Your task to perform on an android device: open a new tab in the chrome app Image 0: 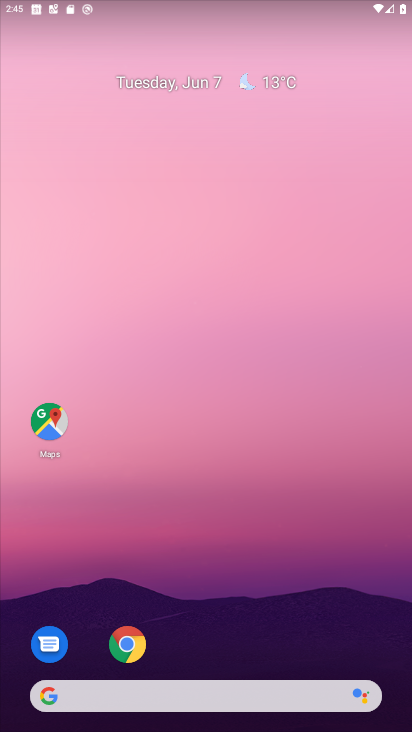
Step 0: press home button
Your task to perform on an android device: open a new tab in the chrome app Image 1: 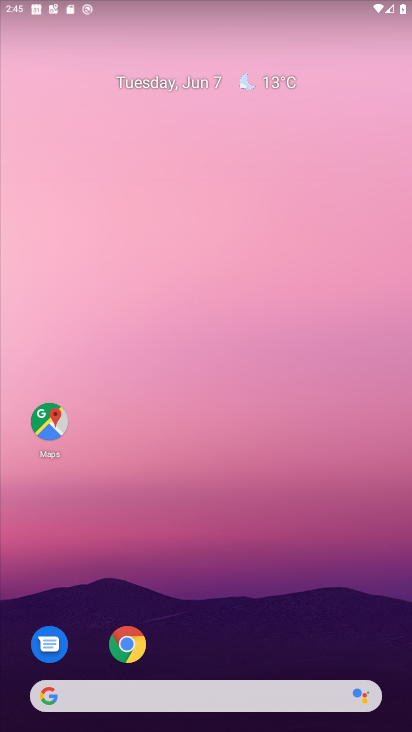
Step 1: drag from (226, 662) to (230, 67)
Your task to perform on an android device: open a new tab in the chrome app Image 2: 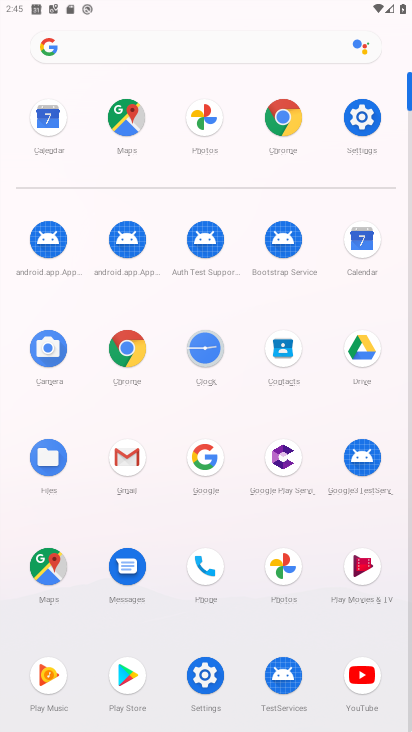
Step 2: click (124, 343)
Your task to perform on an android device: open a new tab in the chrome app Image 3: 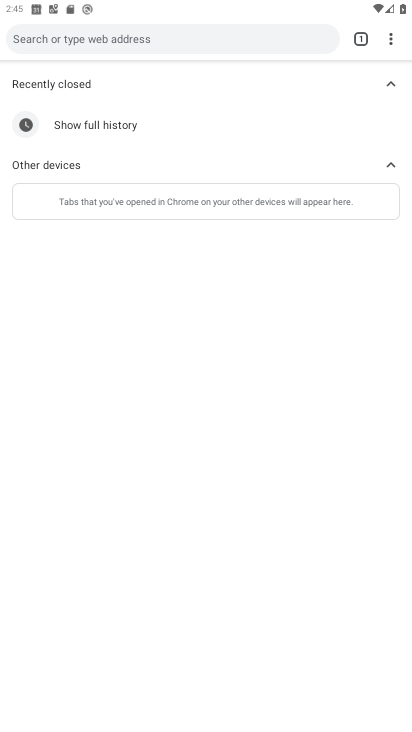
Step 3: click (359, 35)
Your task to perform on an android device: open a new tab in the chrome app Image 4: 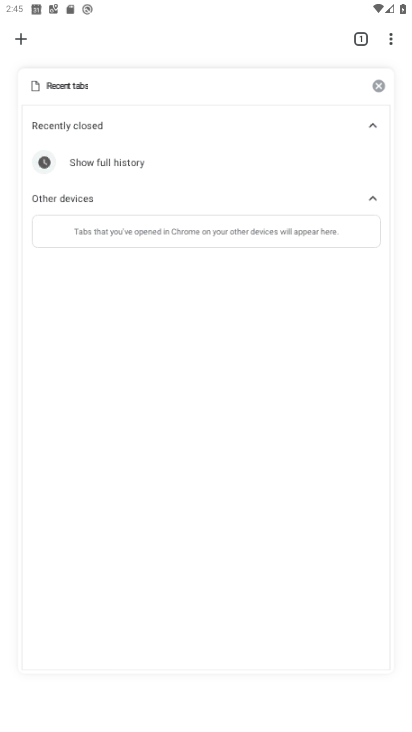
Step 4: click (21, 34)
Your task to perform on an android device: open a new tab in the chrome app Image 5: 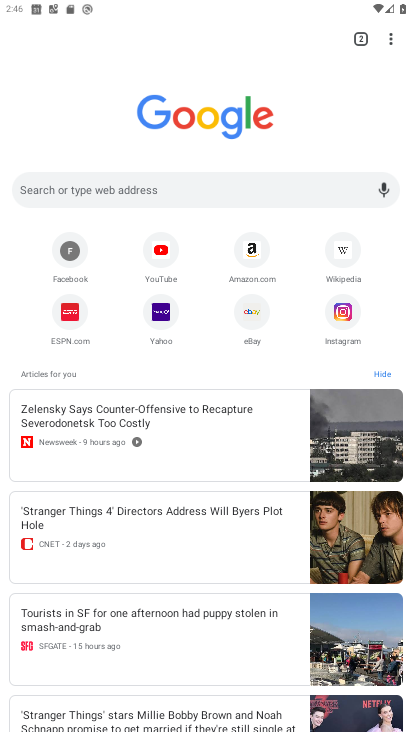
Step 5: task complete